Your task to perform on an android device: check out phone information Image 0: 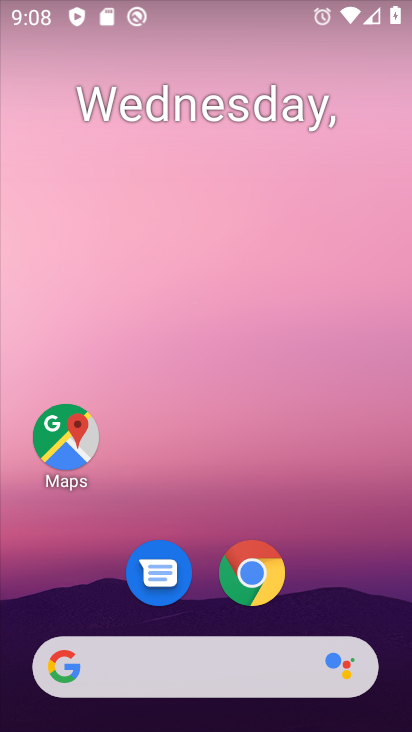
Step 0: drag from (257, 555) to (410, 256)
Your task to perform on an android device: check out phone information Image 1: 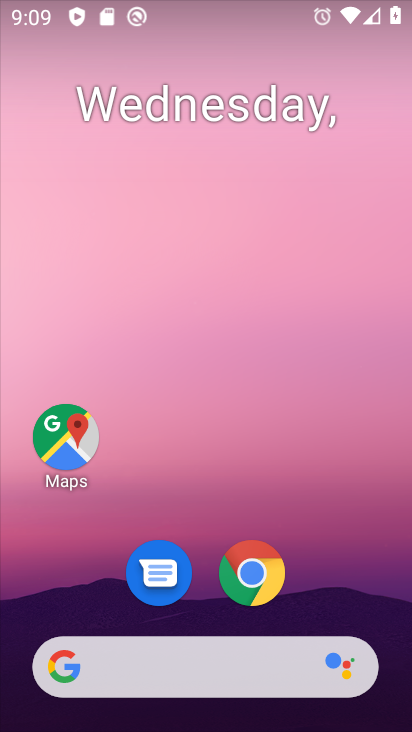
Step 1: drag from (247, 591) to (287, 1)
Your task to perform on an android device: check out phone information Image 2: 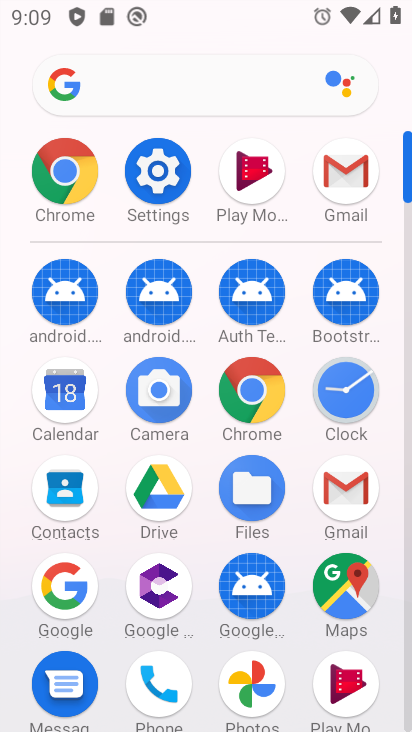
Step 2: click (188, 197)
Your task to perform on an android device: check out phone information Image 3: 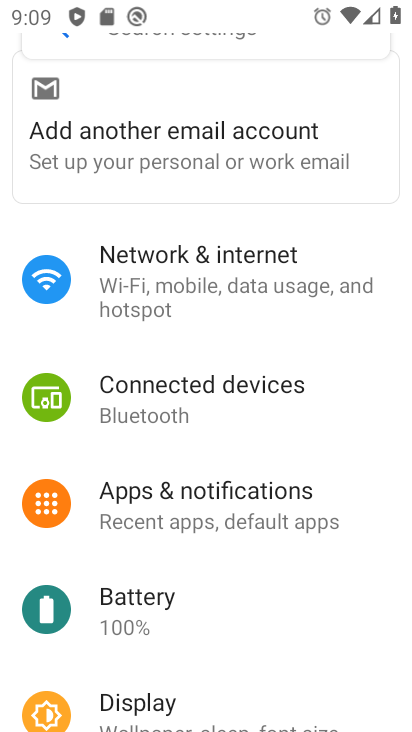
Step 3: drag from (252, 561) to (235, 119)
Your task to perform on an android device: check out phone information Image 4: 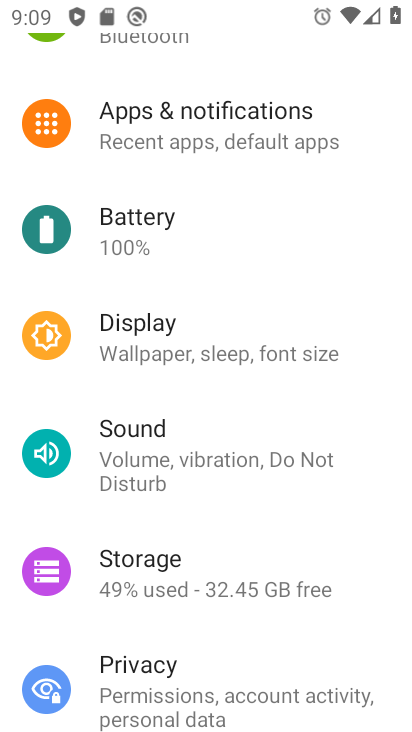
Step 4: drag from (209, 577) to (160, 44)
Your task to perform on an android device: check out phone information Image 5: 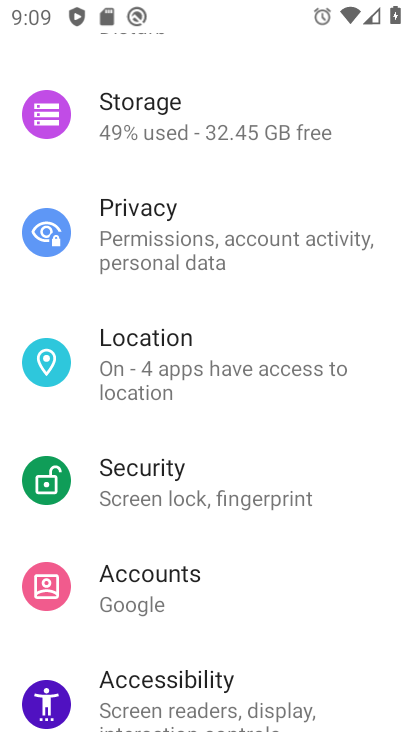
Step 5: drag from (198, 449) to (181, 29)
Your task to perform on an android device: check out phone information Image 6: 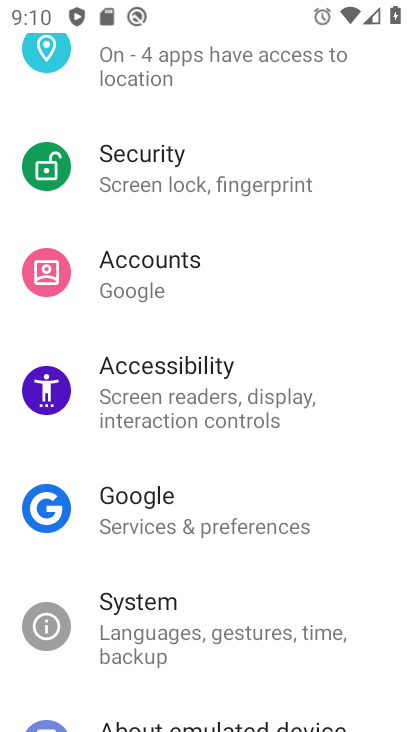
Step 6: drag from (213, 600) to (201, 61)
Your task to perform on an android device: check out phone information Image 7: 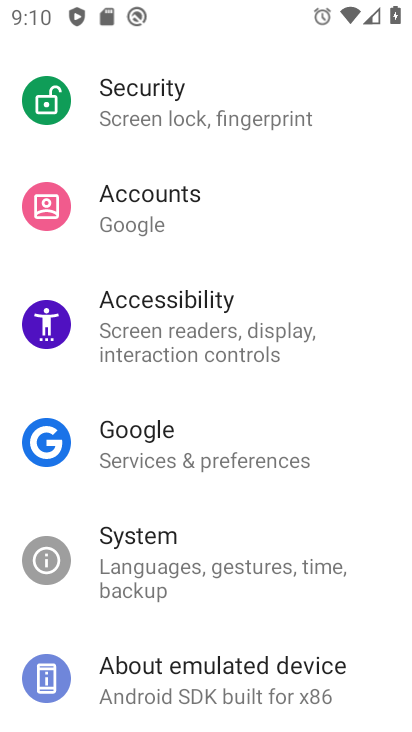
Step 7: drag from (208, 572) to (227, 33)
Your task to perform on an android device: check out phone information Image 8: 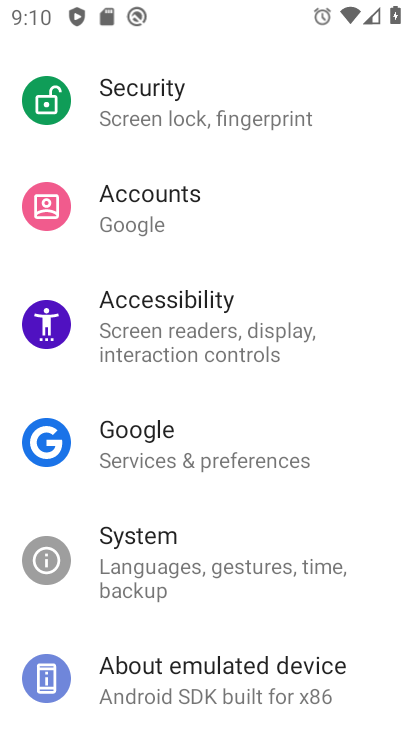
Step 8: click (220, 682)
Your task to perform on an android device: check out phone information Image 9: 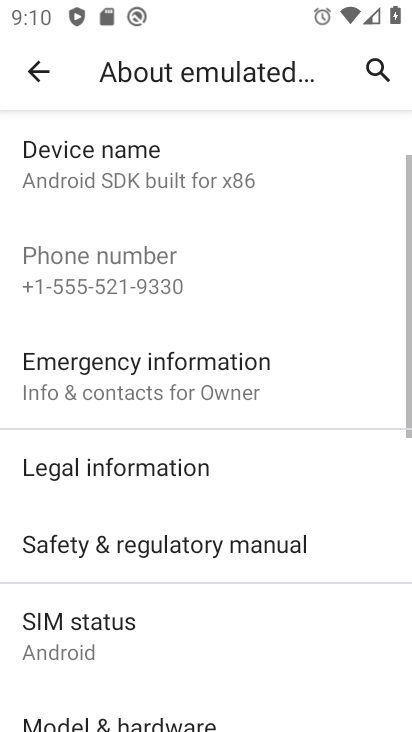
Step 9: task complete